Your task to perform on an android device: turn on data saver in the chrome app Image 0: 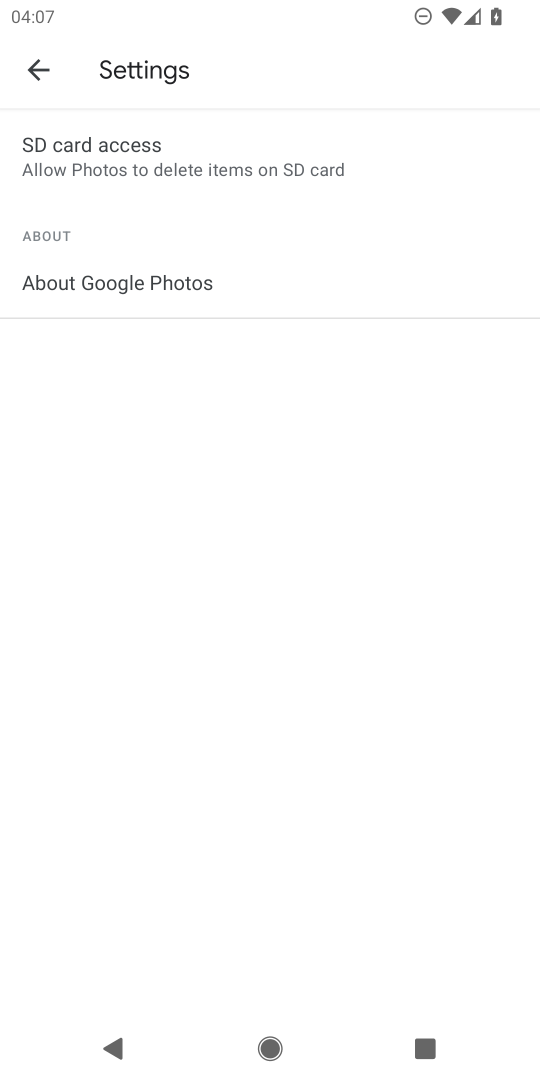
Step 0: press home button
Your task to perform on an android device: turn on data saver in the chrome app Image 1: 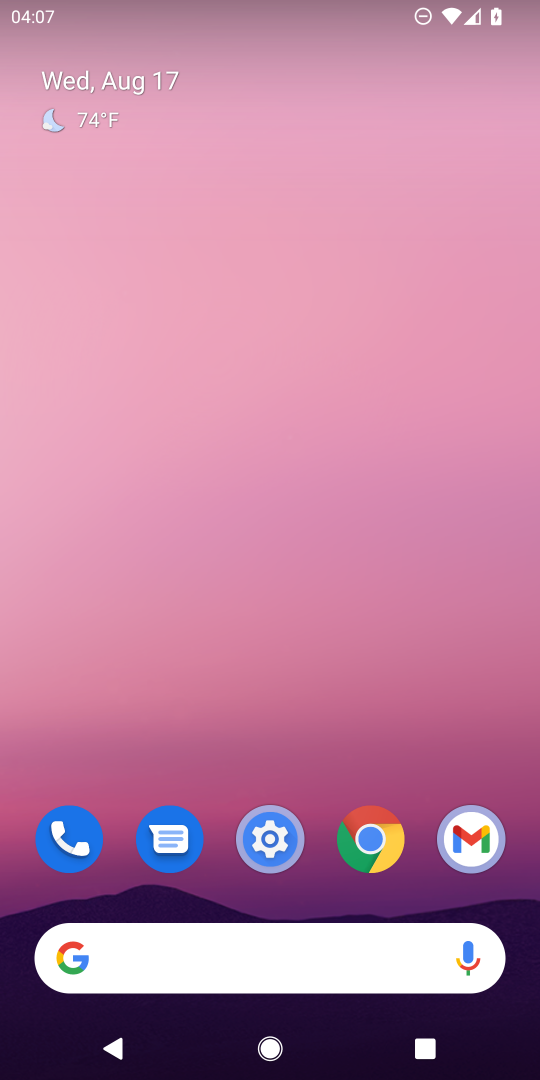
Step 1: click (373, 838)
Your task to perform on an android device: turn on data saver in the chrome app Image 2: 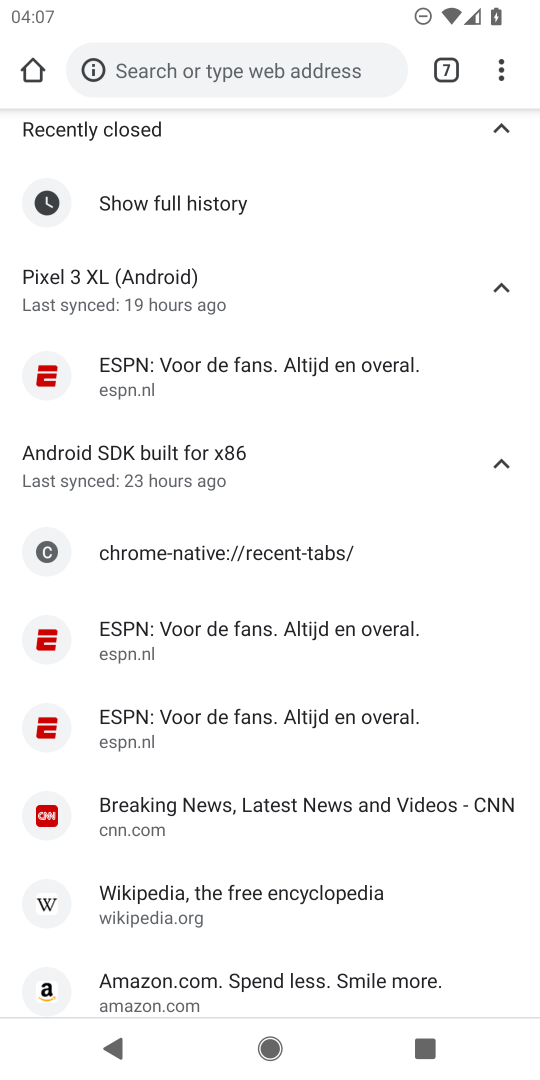
Step 2: click (502, 75)
Your task to perform on an android device: turn on data saver in the chrome app Image 3: 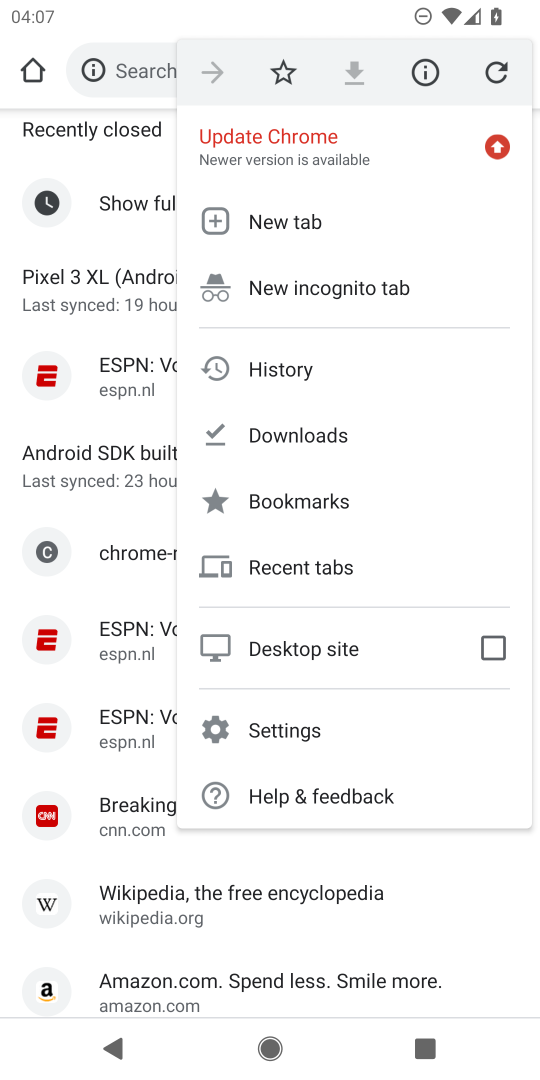
Step 3: click (312, 729)
Your task to perform on an android device: turn on data saver in the chrome app Image 4: 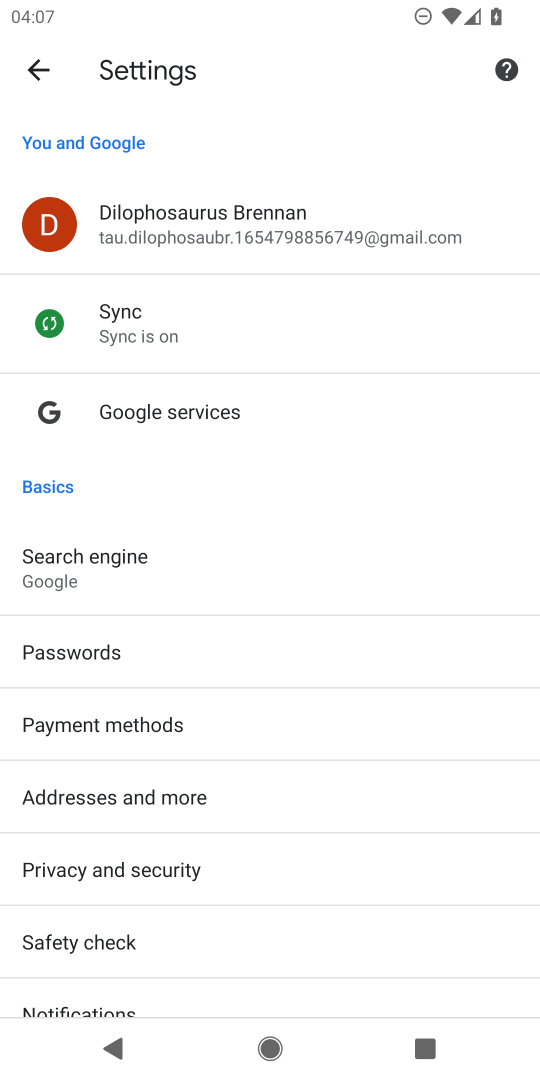
Step 4: drag from (124, 963) to (113, 642)
Your task to perform on an android device: turn on data saver in the chrome app Image 5: 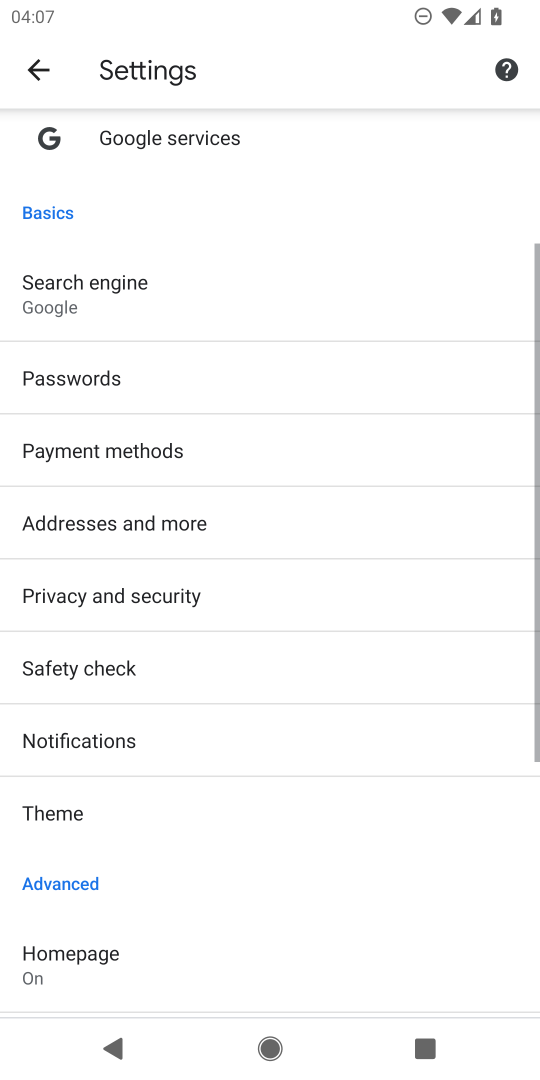
Step 5: drag from (112, 559) to (123, 417)
Your task to perform on an android device: turn on data saver in the chrome app Image 6: 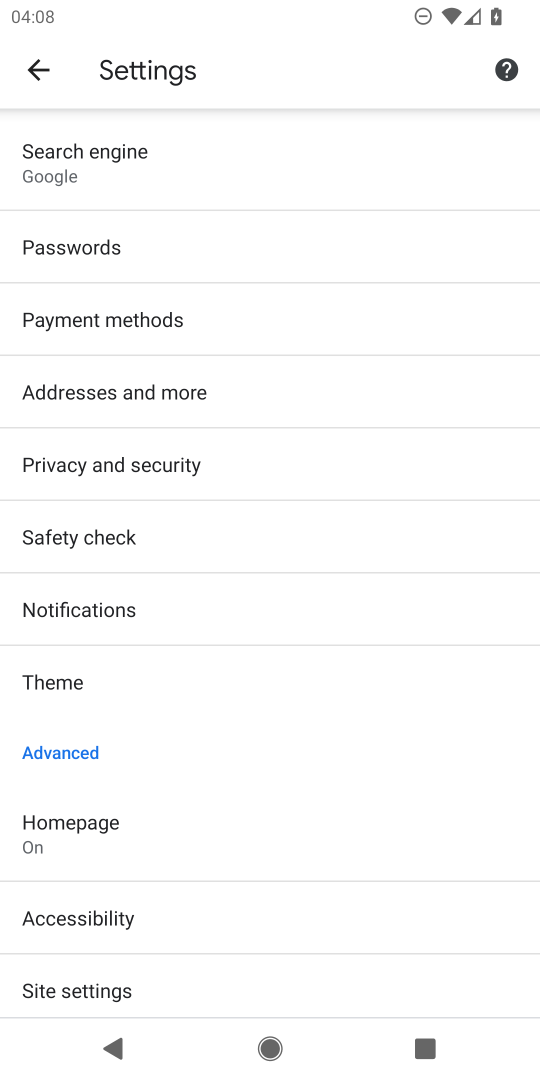
Step 6: drag from (99, 961) to (99, 879)
Your task to perform on an android device: turn on data saver in the chrome app Image 7: 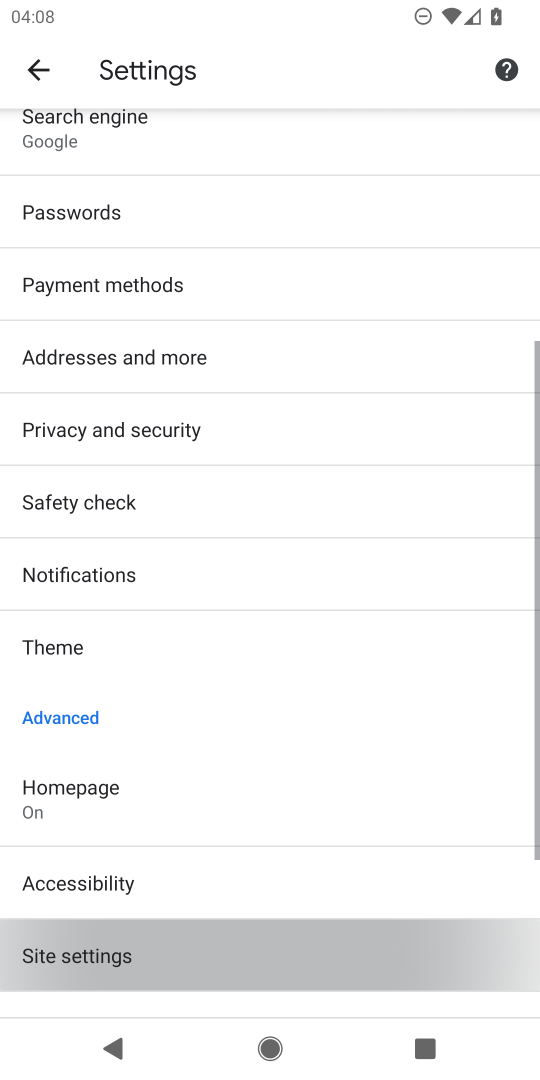
Step 7: drag from (98, 833) to (129, 662)
Your task to perform on an android device: turn on data saver in the chrome app Image 8: 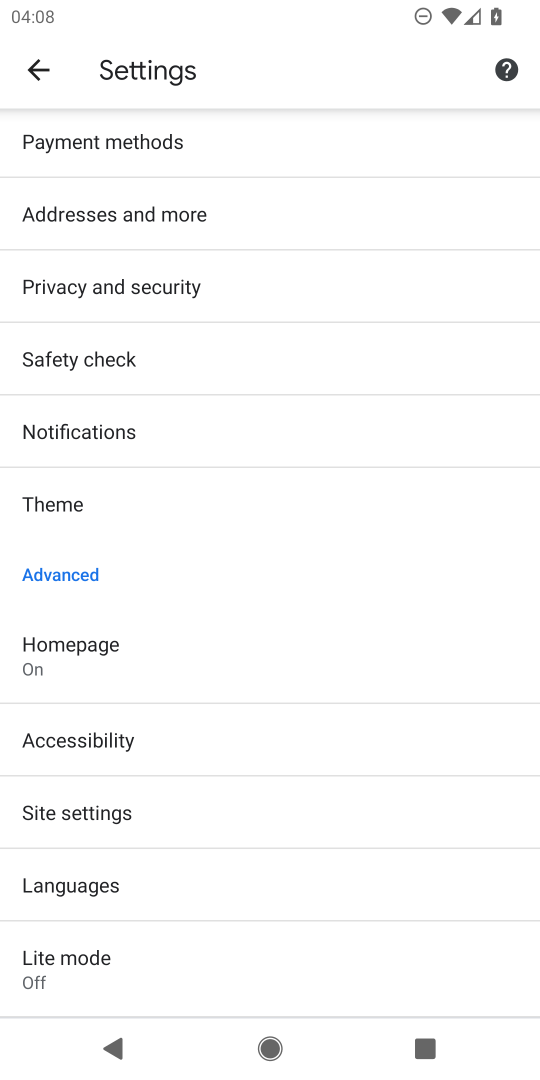
Step 8: click (88, 956)
Your task to perform on an android device: turn on data saver in the chrome app Image 9: 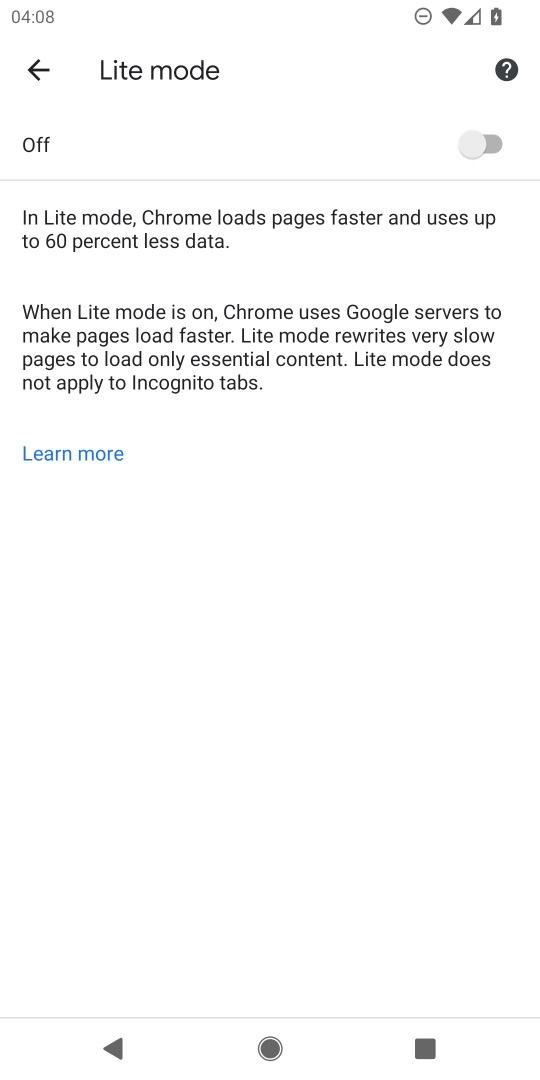
Step 9: click (494, 143)
Your task to perform on an android device: turn on data saver in the chrome app Image 10: 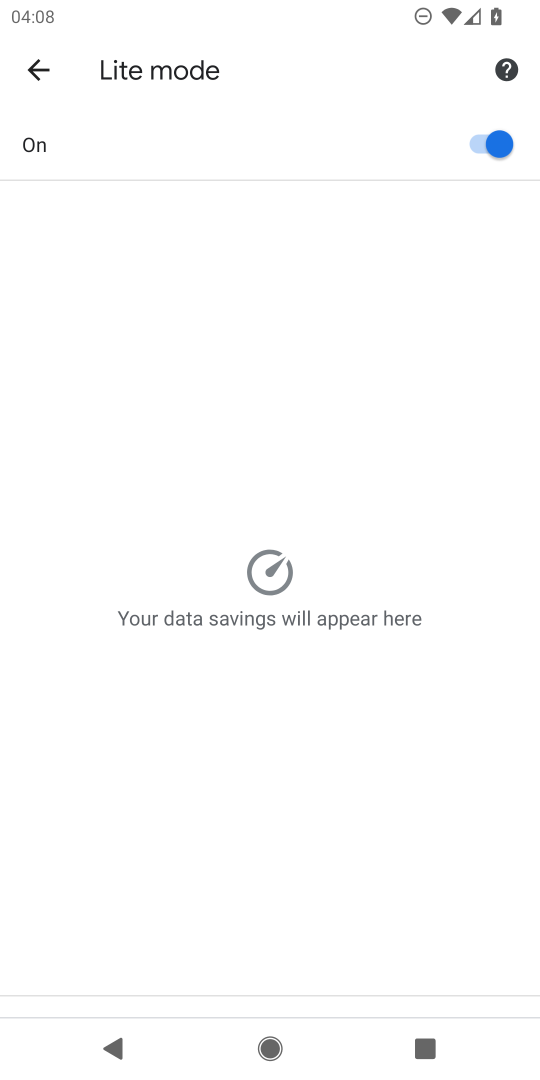
Step 10: task complete